Your task to perform on an android device: turn notification dots on Image 0: 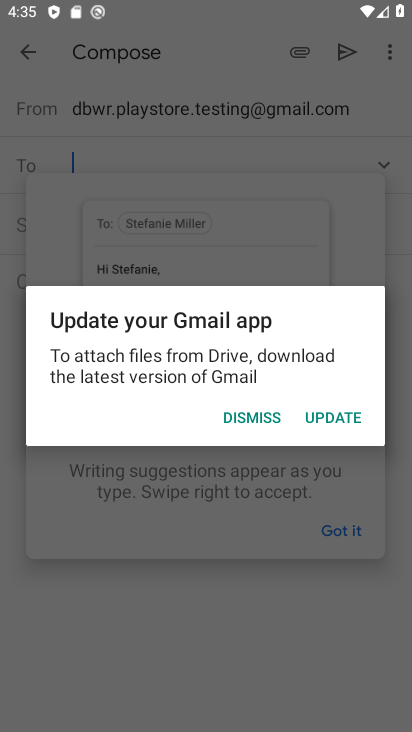
Step 0: press home button
Your task to perform on an android device: turn notification dots on Image 1: 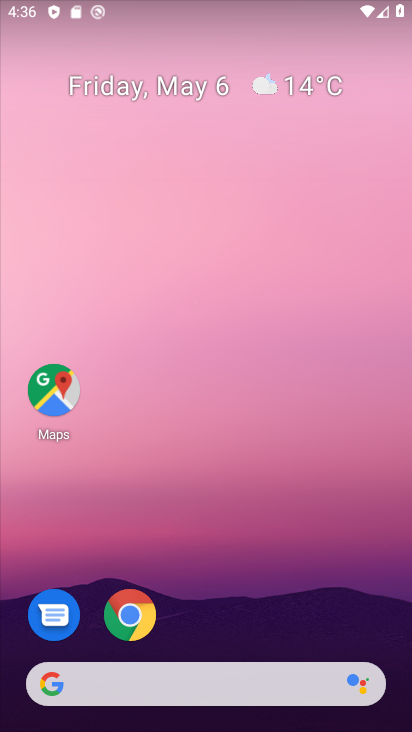
Step 1: drag from (276, 576) to (204, 76)
Your task to perform on an android device: turn notification dots on Image 2: 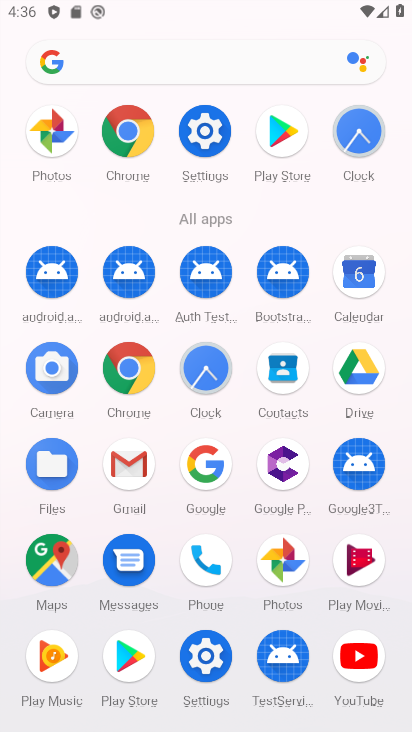
Step 2: click (194, 157)
Your task to perform on an android device: turn notification dots on Image 3: 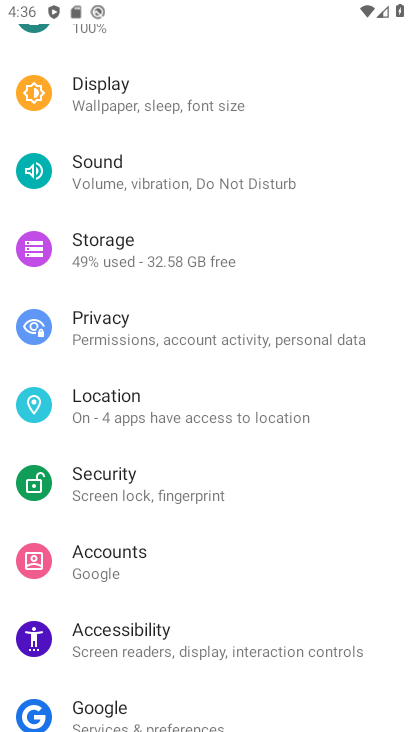
Step 3: click (213, 433)
Your task to perform on an android device: turn notification dots on Image 4: 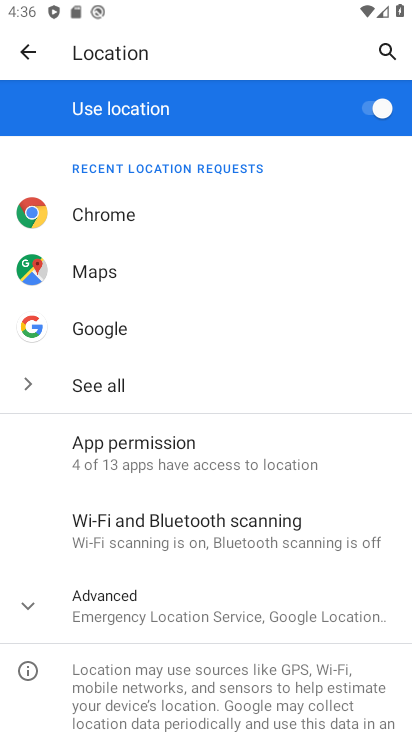
Step 4: click (163, 606)
Your task to perform on an android device: turn notification dots on Image 5: 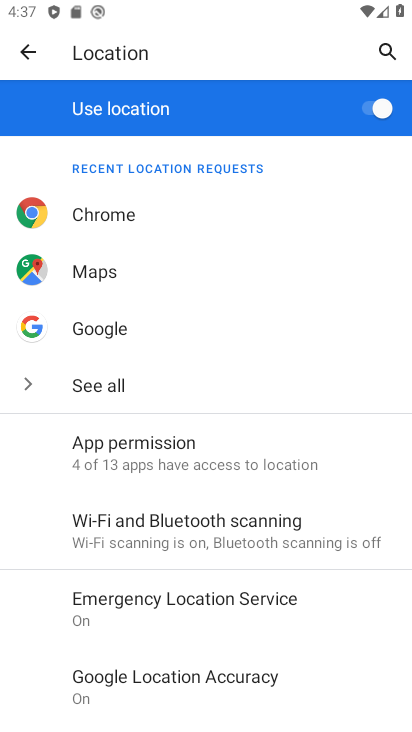
Step 5: task complete